Your task to perform on an android device: What's on my calendar today? Image 0: 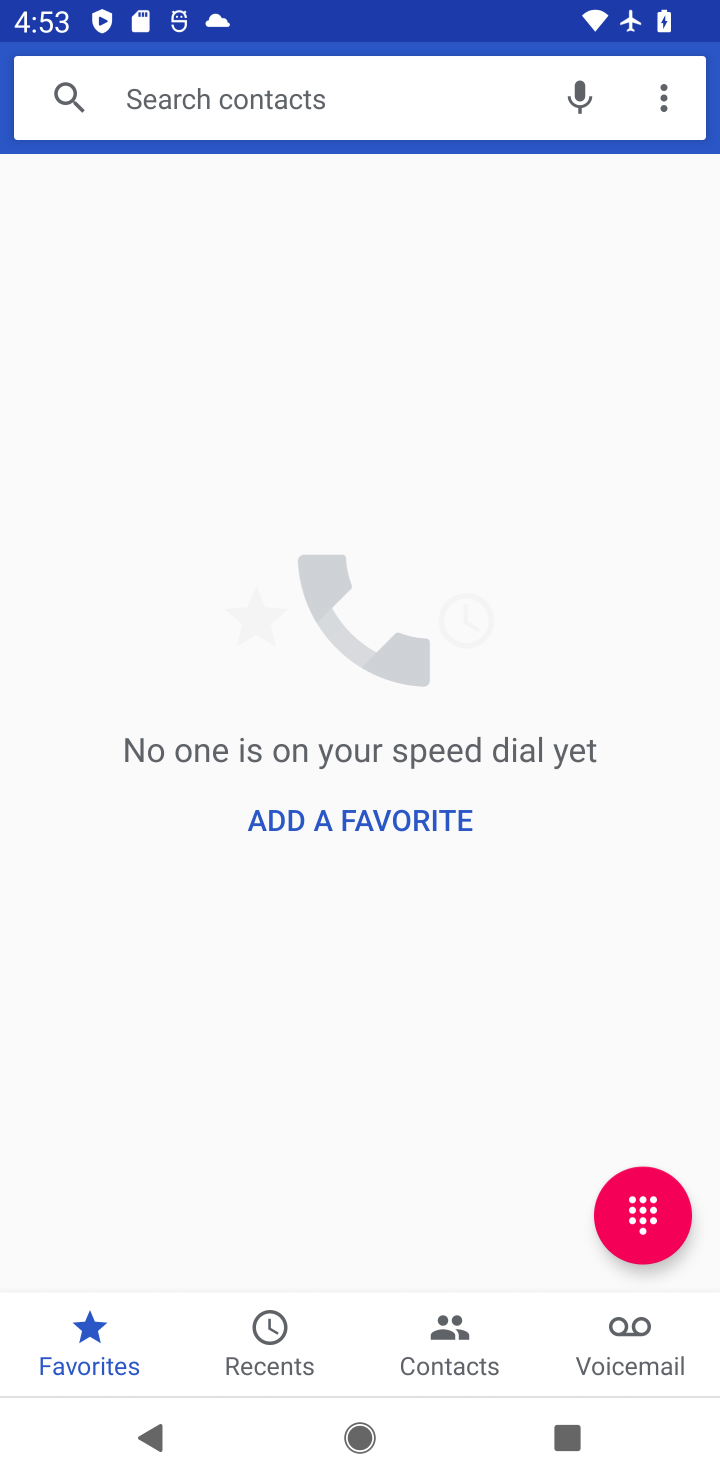
Step 0: press home button
Your task to perform on an android device: What's on my calendar today? Image 1: 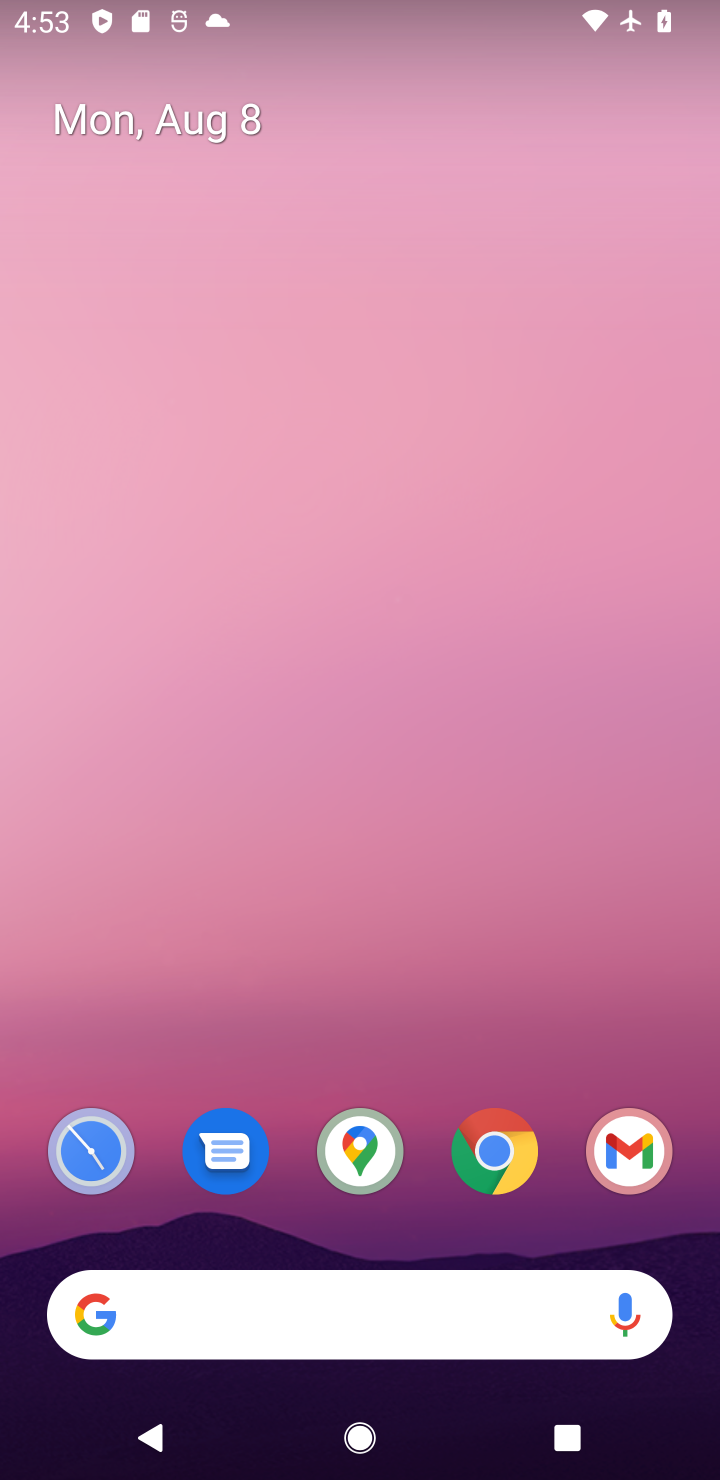
Step 1: drag from (323, 1056) to (228, 216)
Your task to perform on an android device: What's on my calendar today? Image 2: 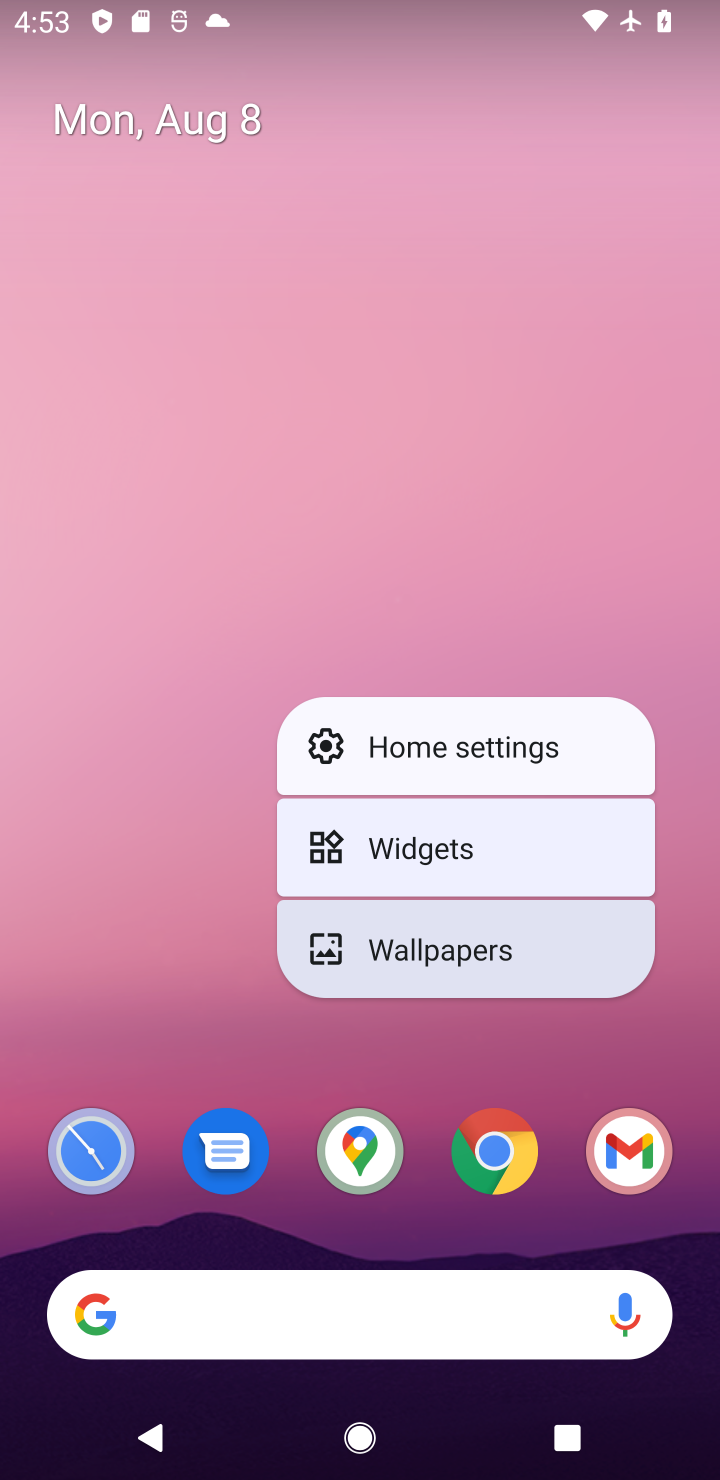
Step 2: click (184, 673)
Your task to perform on an android device: What's on my calendar today? Image 3: 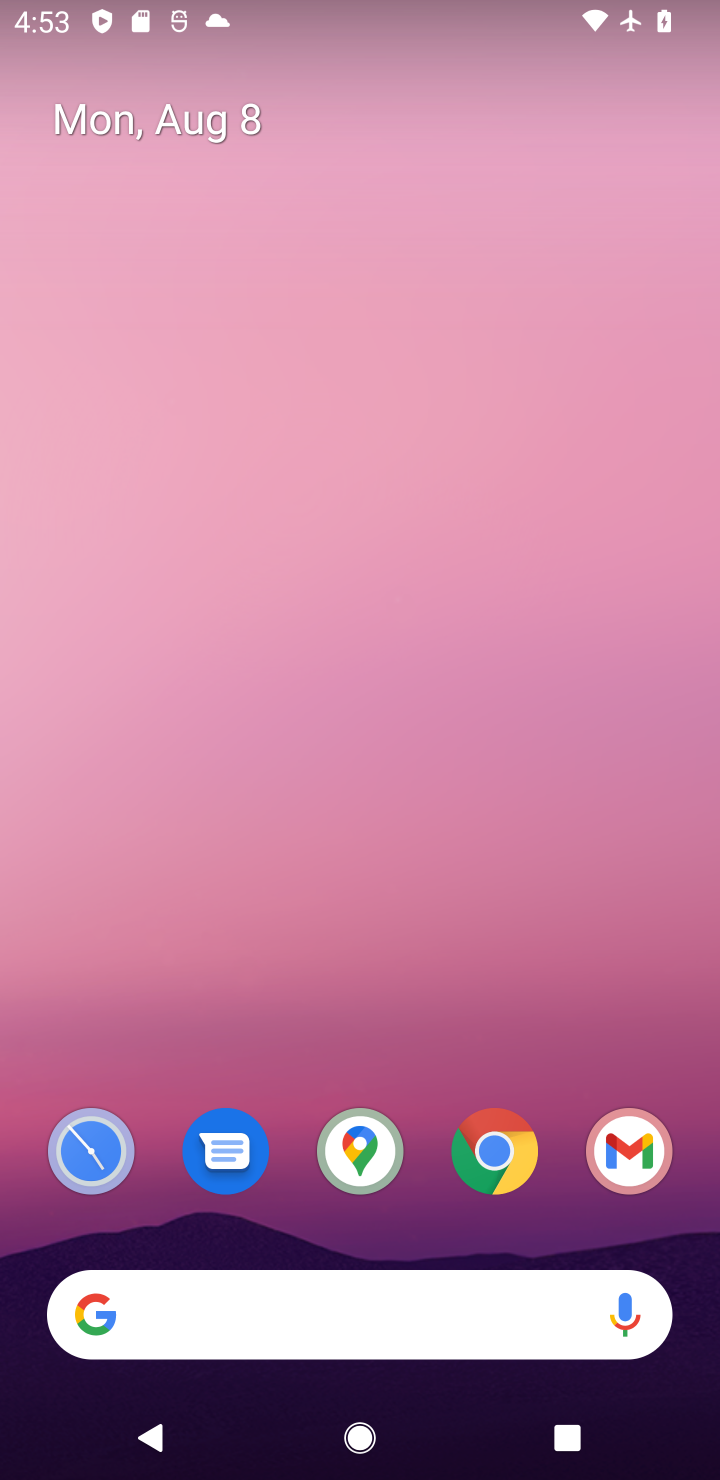
Step 3: drag from (384, 1009) to (360, 187)
Your task to perform on an android device: What's on my calendar today? Image 4: 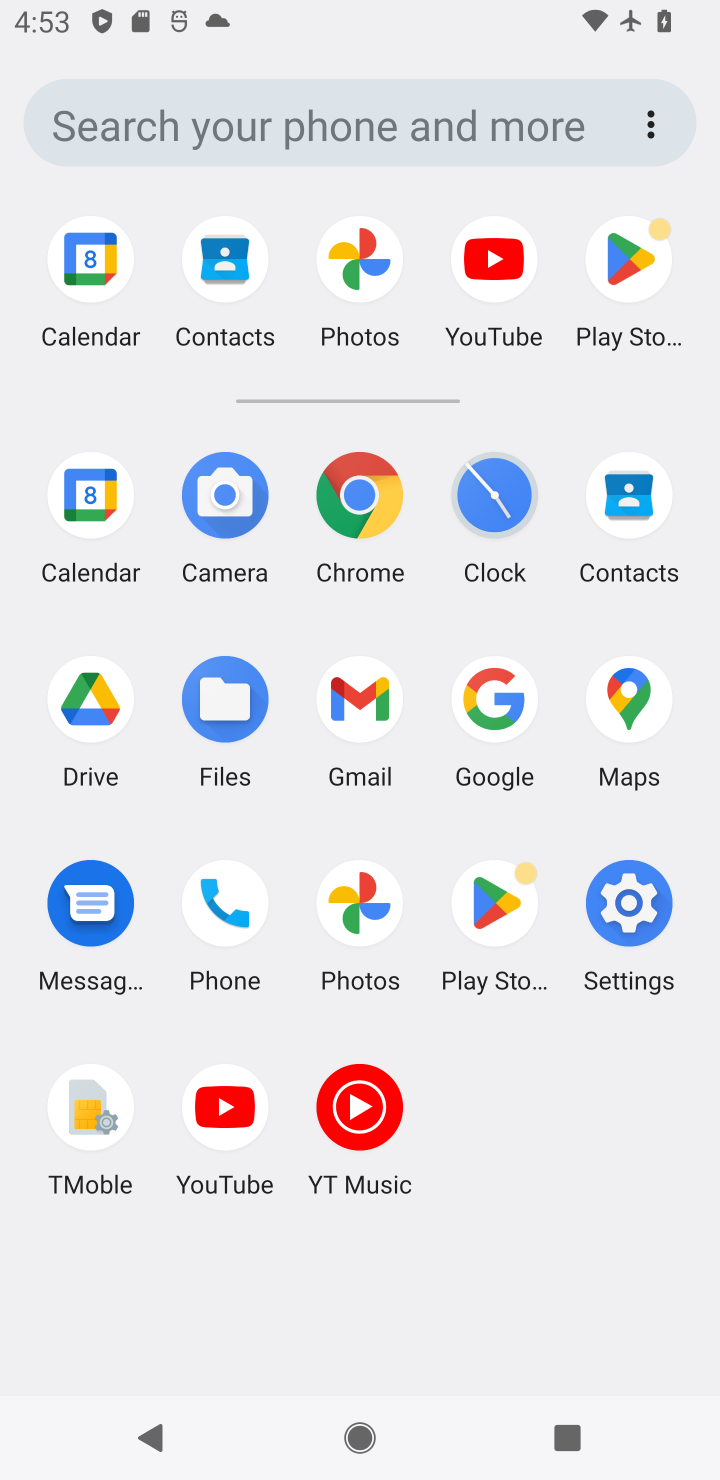
Step 4: click (118, 480)
Your task to perform on an android device: What's on my calendar today? Image 5: 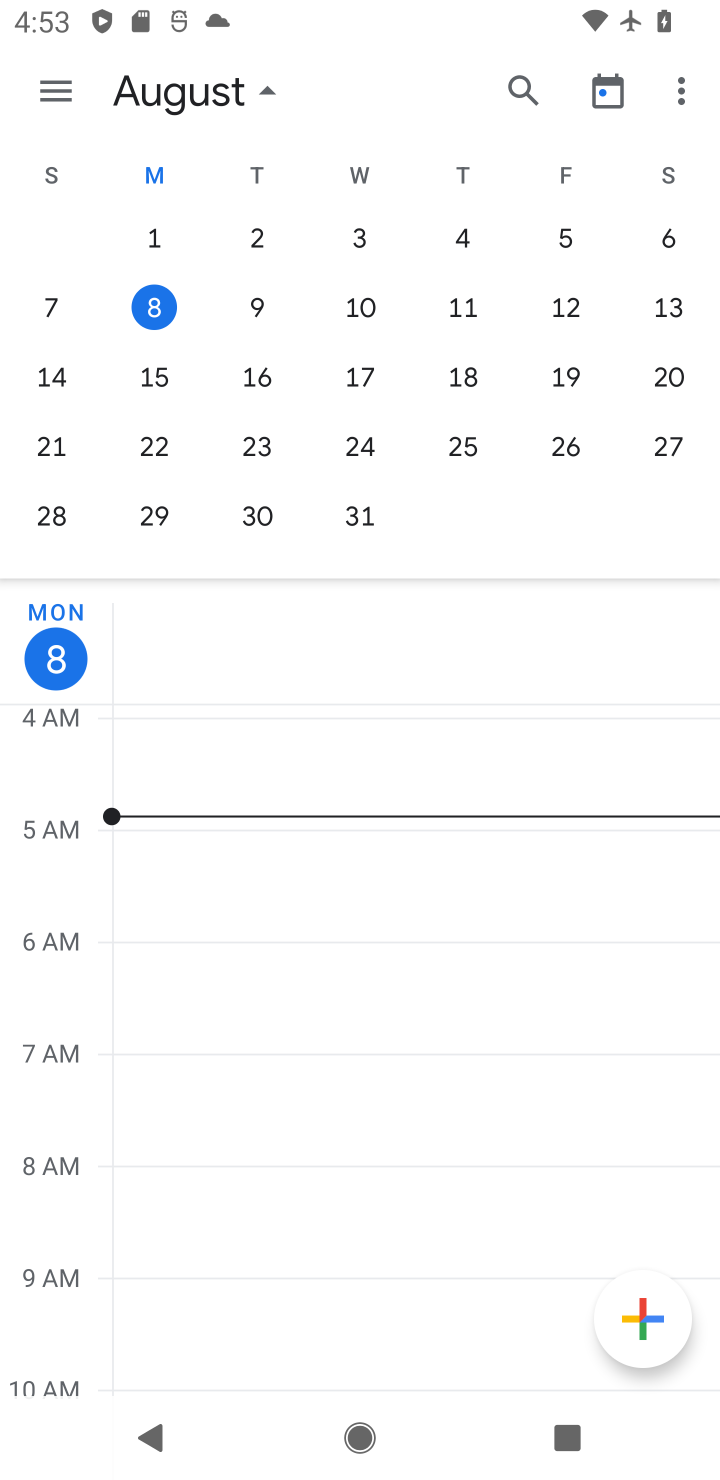
Step 5: click (68, 109)
Your task to perform on an android device: What's on my calendar today? Image 6: 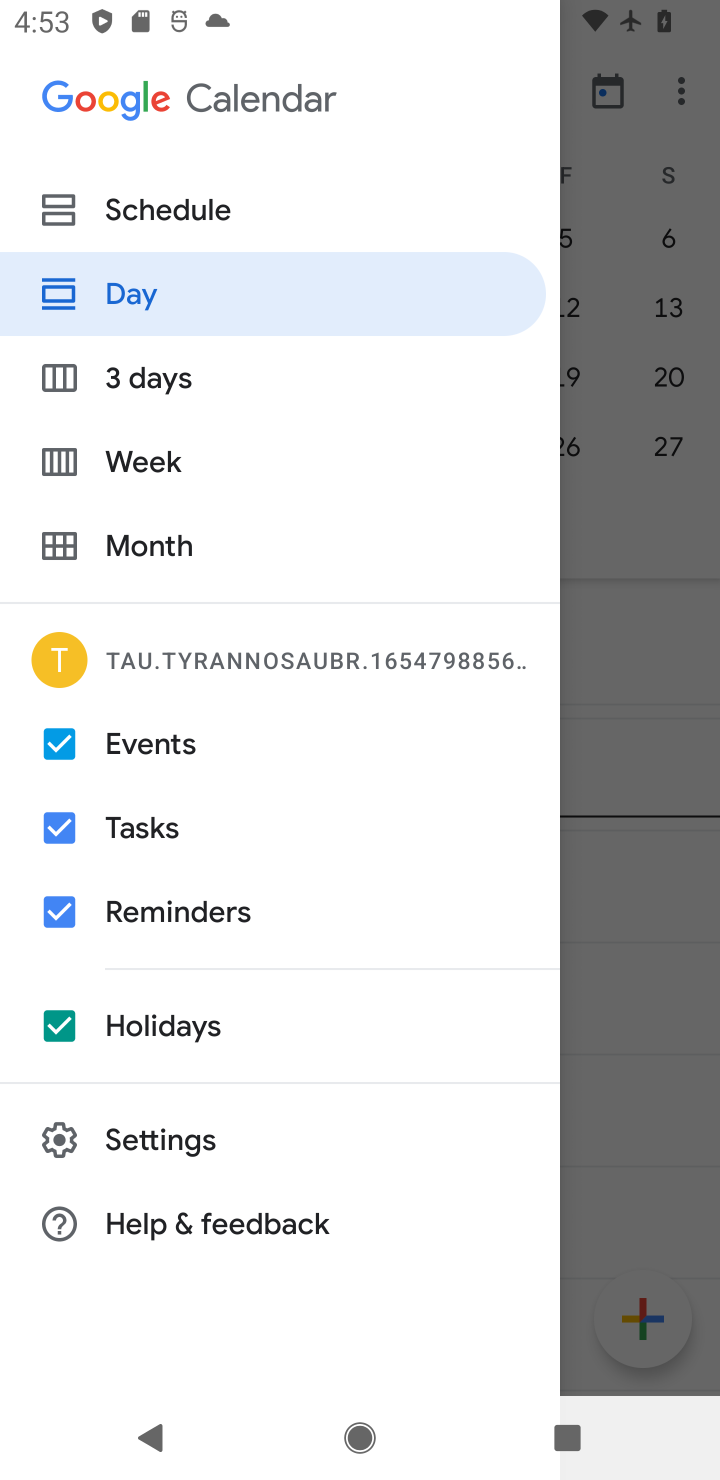
Step 6: click (597, 257)
Your task to perform on an android device: What's on my calendar today? Image 7: 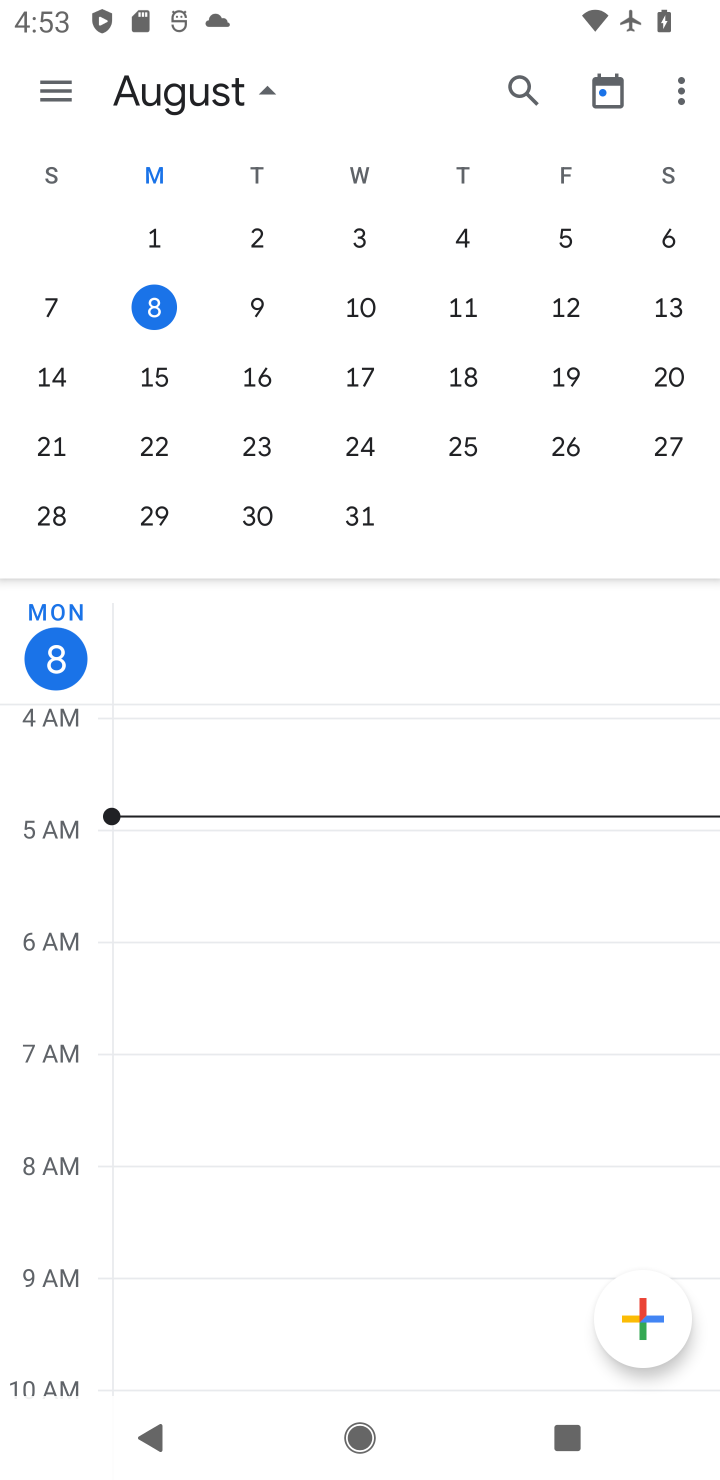
Step 7: click (169, 308)
Your task to perform on an android device: What's on my calendar today? Image 8: 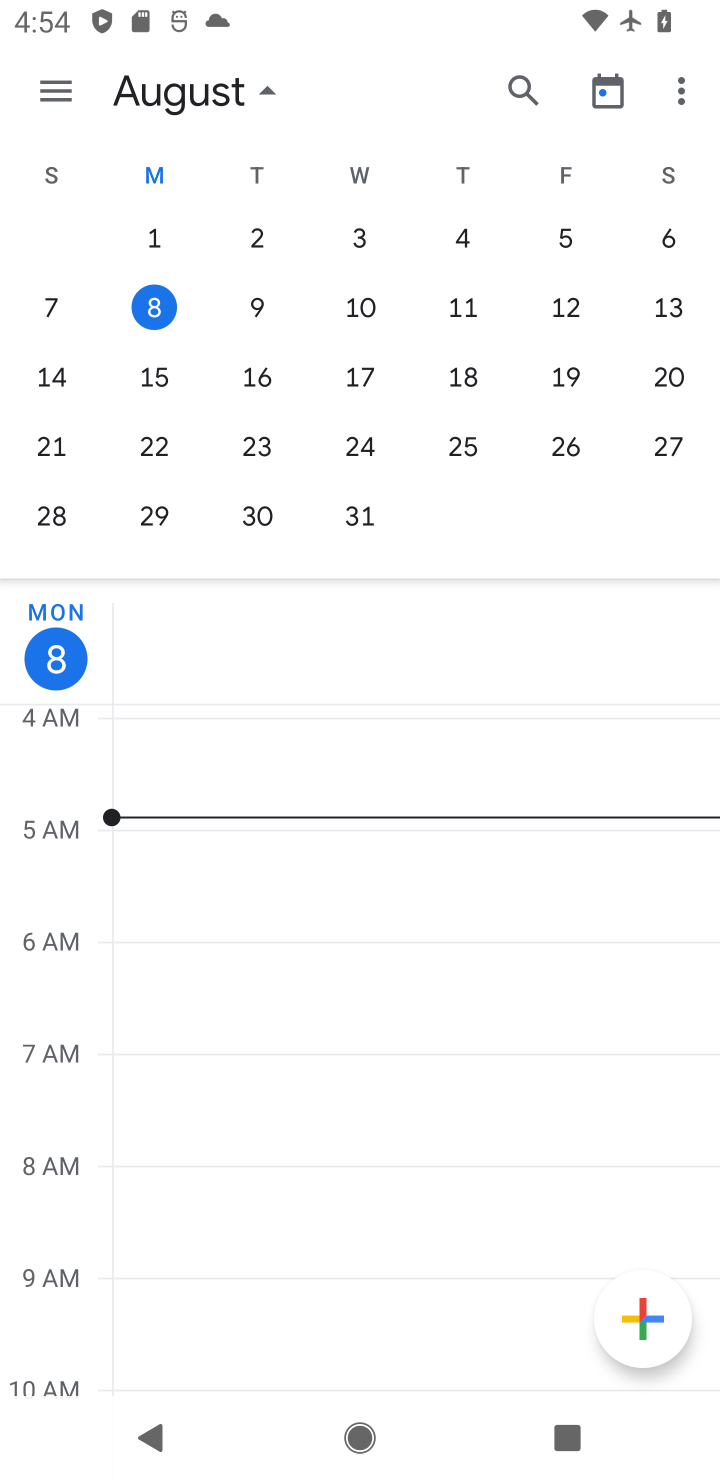
Step 8: click (50, 102)
Your task to perform on an android device: What's on my calendar today? Image 9: 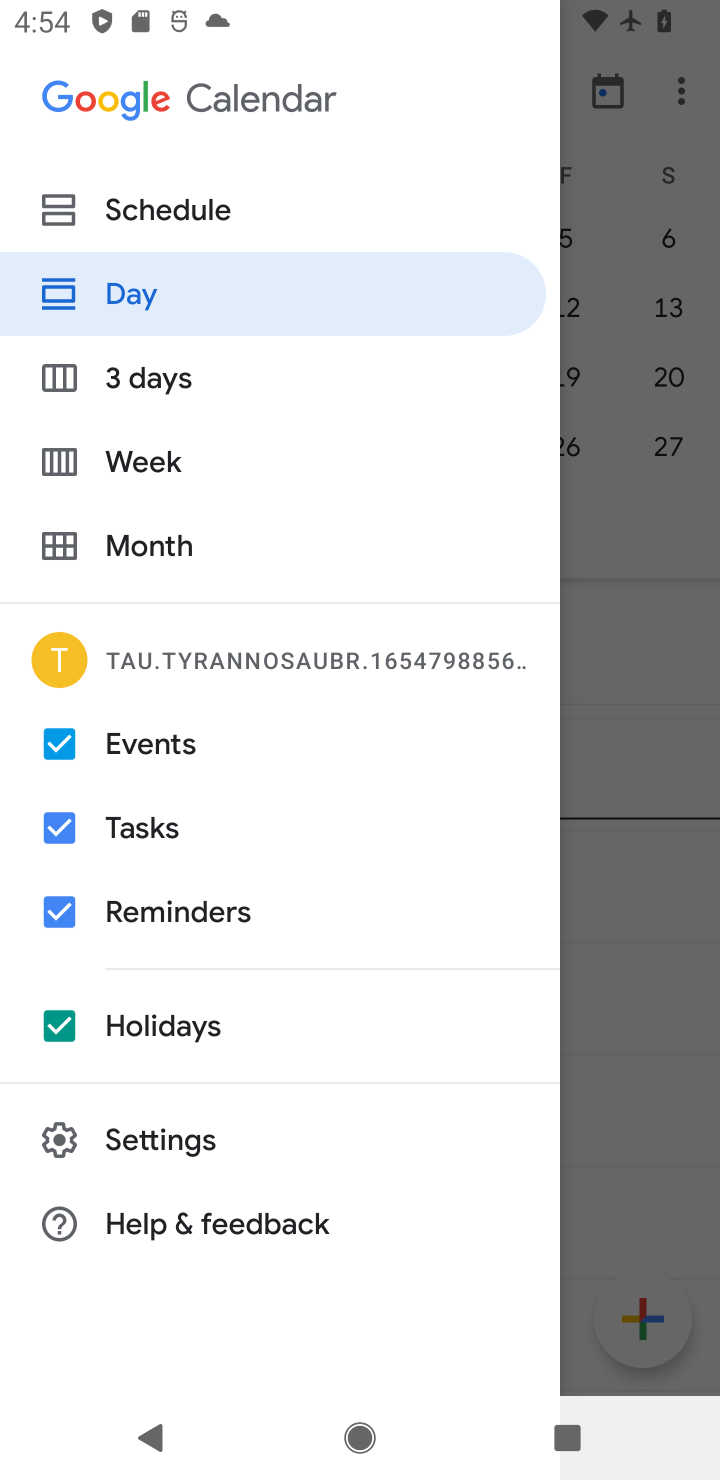
Step 9: click (238, 240)
Your task to perform on an android device: What's on my calendar today? Image 10: 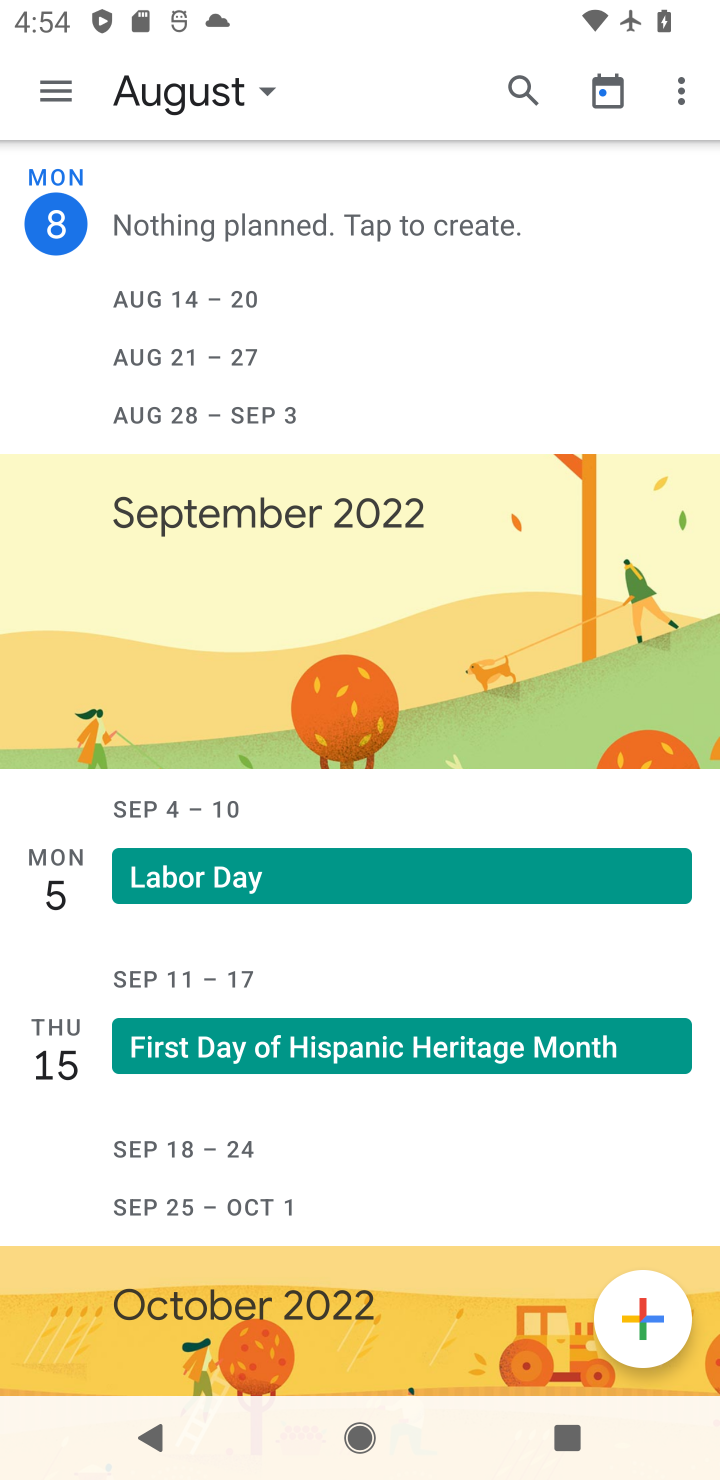
Step 10: task complete